Your task to perform on an android device: Open the map Image 0: 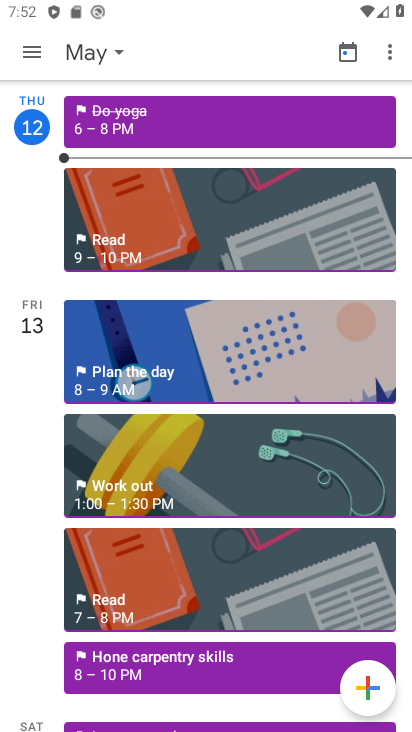
Step 0: press back button
Your task to perform on an android device: Open the map Image 1: 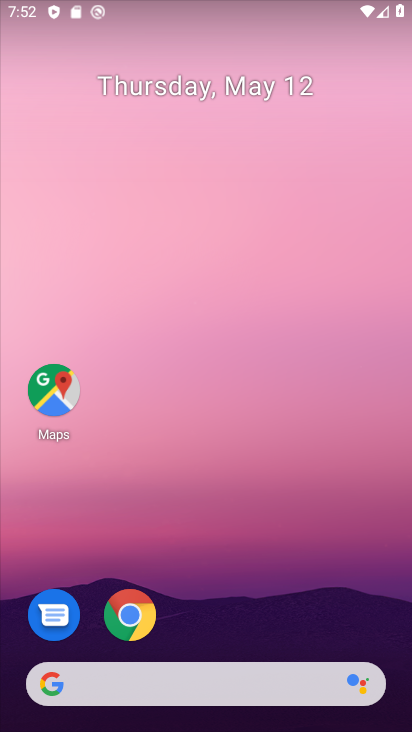
Step 1: click (49, 387)
Your task to perform on an android device: Open the map Image 2: 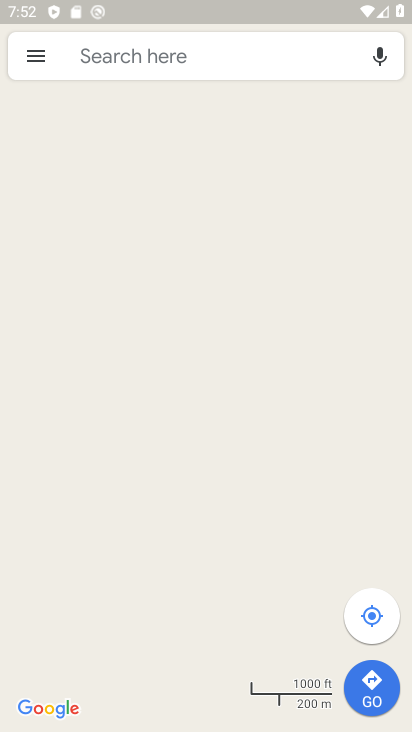
Step 2: click (200, 57)
Your task to perform on an android device: Open the map Image 3: 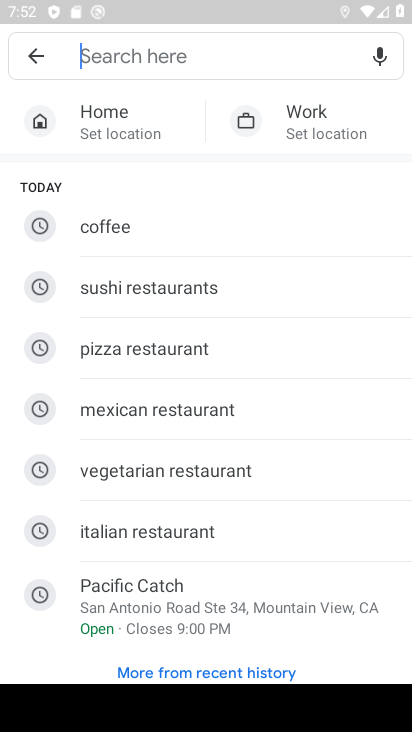
Step 3: type "Open the map"
Your task to perform on an android device: Open the map Image 4: 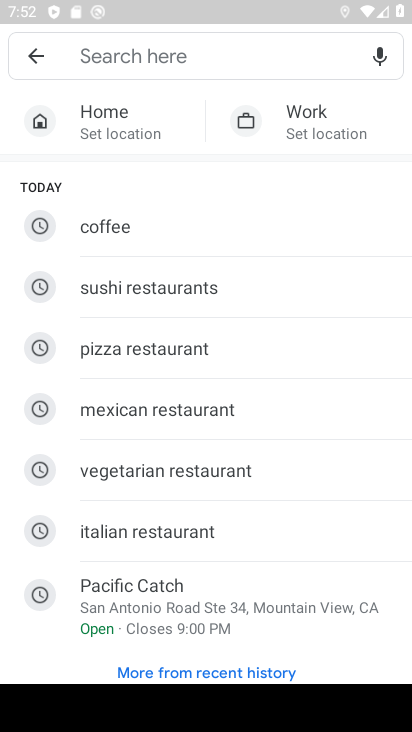
Step 4: click (28, 54)
Your task to perform on an android device: Open the map Image 5: 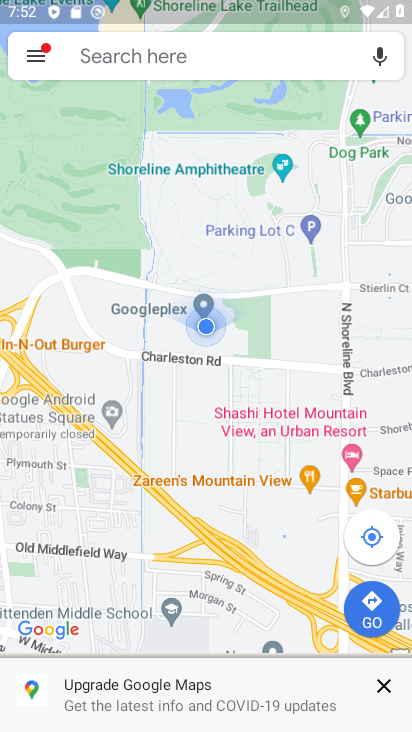
Step 5: task complete